Your task to perform on an android device: Show me popular games on the Play Store Image 0: 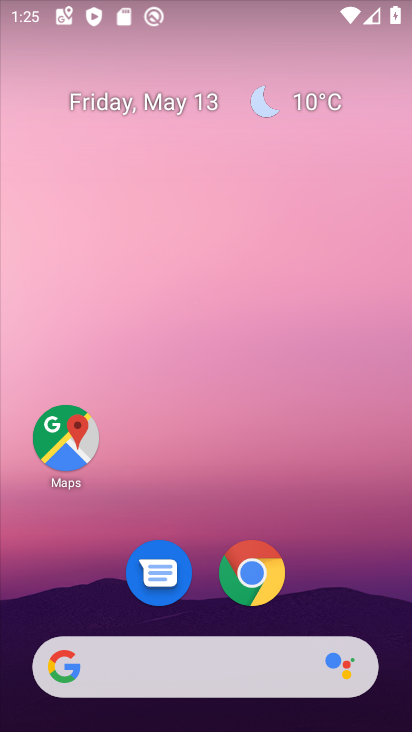
Step 0: drag from (319, 524) to (242, 14)
Your task to perform on an android device: Show me popular games on the Play Store Image 1: 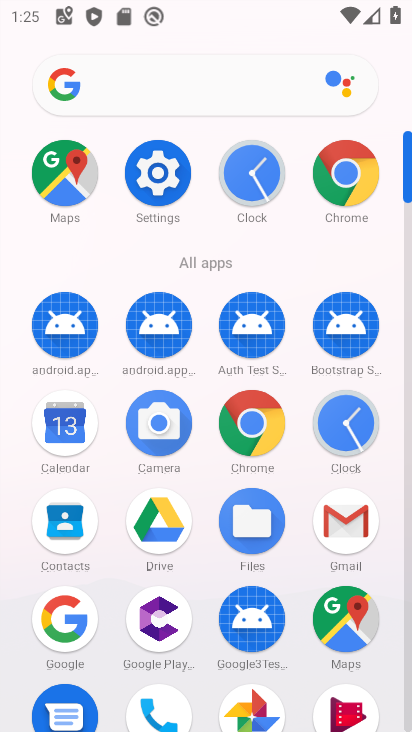
Step 1: drag from (14, 528) to (14, 218)
Your task to perform on an android device: Show me popular games on the Play Store Image 2: 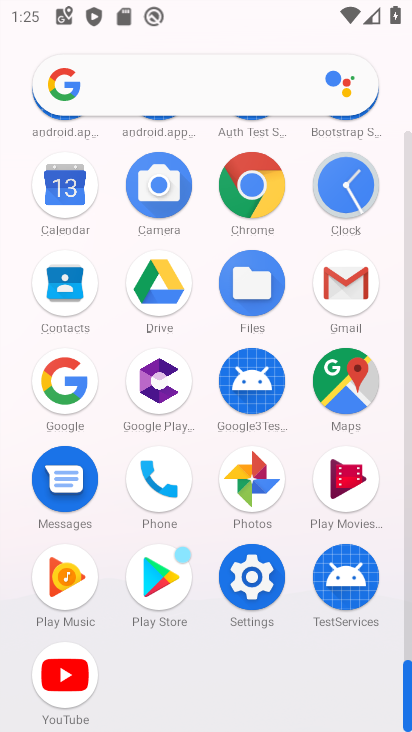
Step 2: click (155, 573)
Your task to perform on an android device: Show me popular games on the Play Store Image 3: 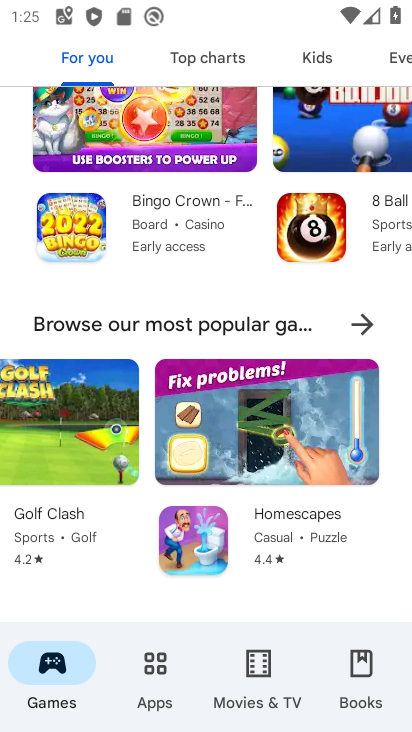
Step 3: task complete